Your task to perform on an android device: toggle airplane mode Image 0: 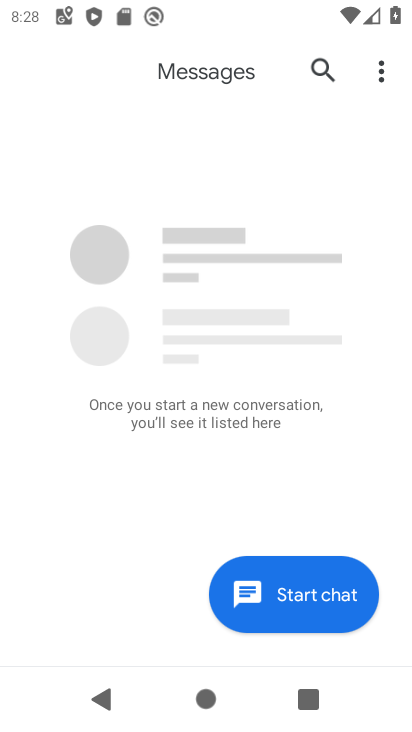
Step 0: press home button
Your task to perform on an android device: toggle airplane mode Image 1: 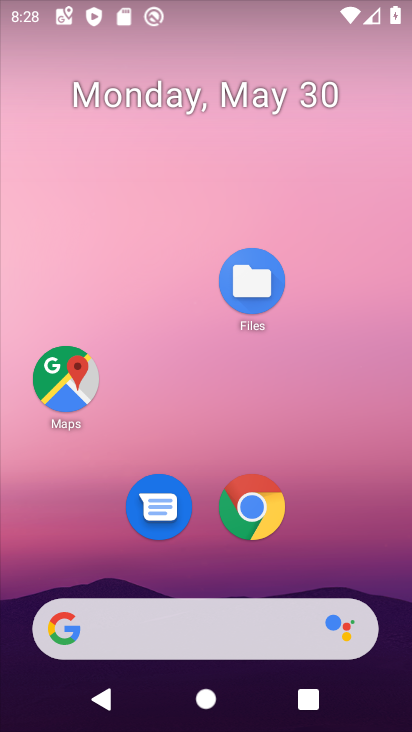
Step 1: drag from (193, 569) to (230, 6)
Your task to perform on an android device: toggle airplane mode Image 2: 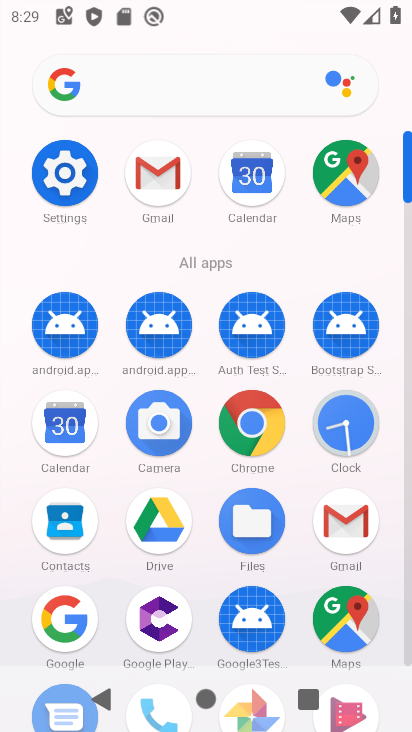
Step 2: click (63, 187)
Your task to perform on an android device: toggle airplane mode Image 3: 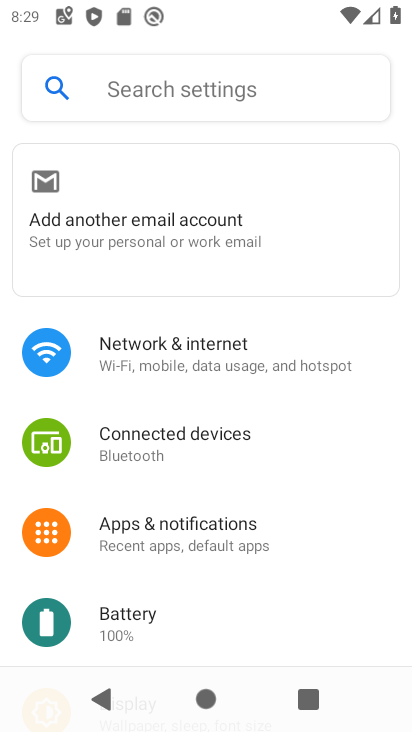
Step 3: click (253, 360)
Your task to perform on an android device: toggle airplane mode Image 4: 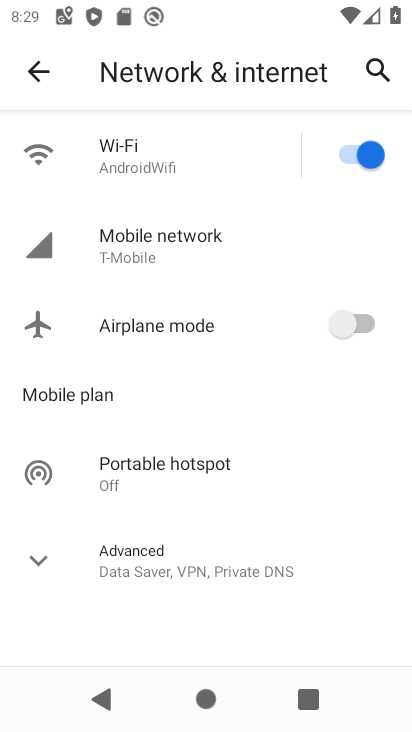
Step 4: click (374, 312)
Your task to perform on an android device: toggle airplane mode Image 5: 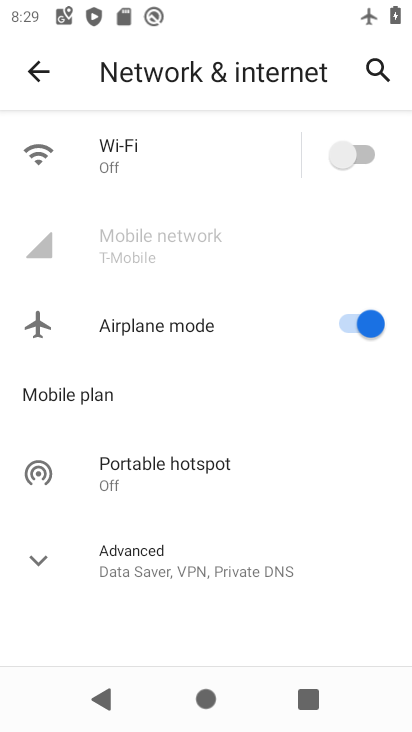
Step 5: task complete